Your task to perform on an android device: Open the map Image 0: 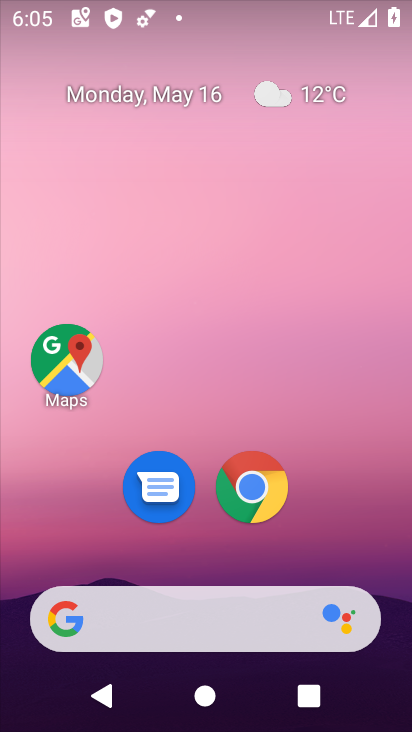
Step 0: click (79, 351)
Your task to perform on an android device: Open the map Image 1: 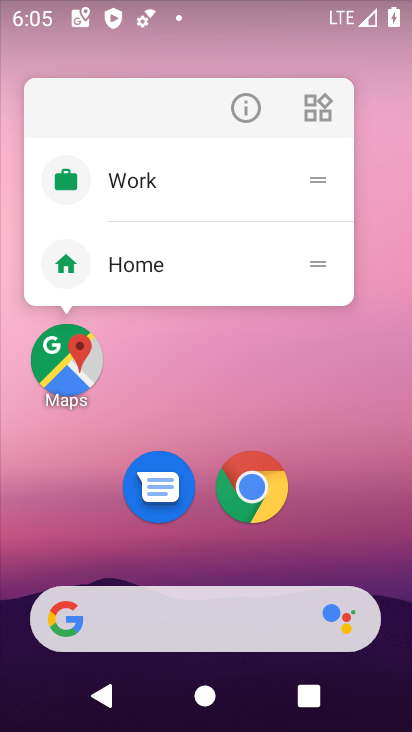
Step 1: click (73, 357)
Your task to perform on an android device: Open the map Image 2: 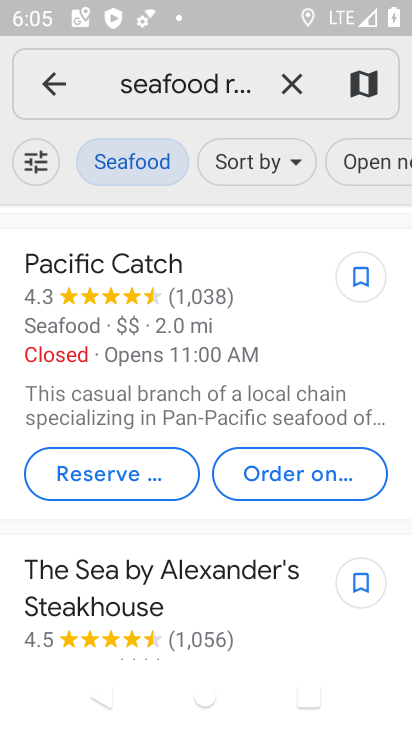
Step 2: task complete